Your task to perform on an android device: toggle improve location accuracy Image 0: 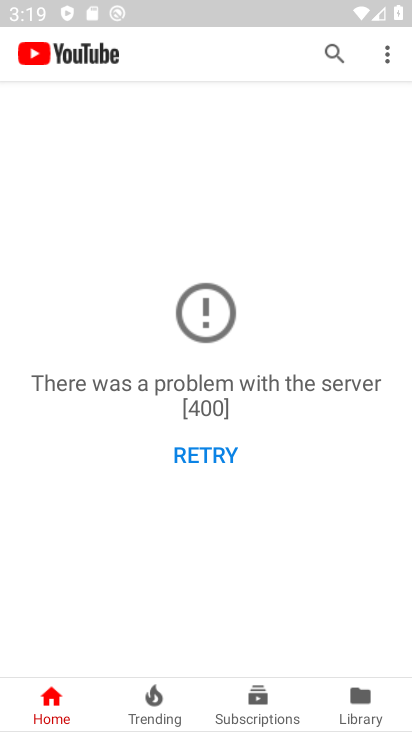
Step 0: press back button
Your task to perform on an android device: toggle improve location accuracy Image 1: 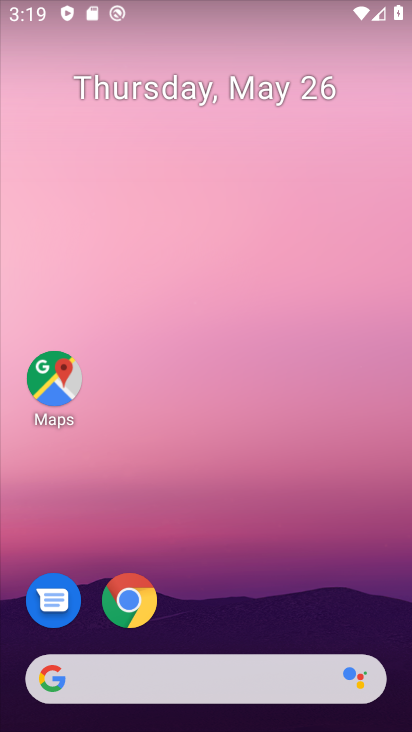
Step 1: drag from (247, 442) to (234, 52)
Your task to perform on an android device: toggle improve location accuracy Image 2: 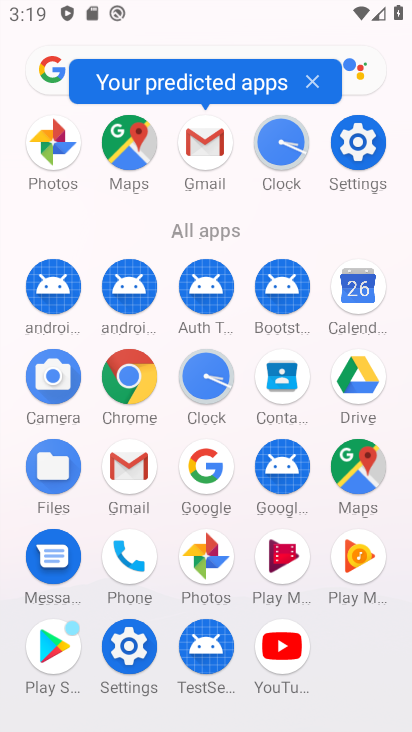
Step 2: drag from (12, 633) to (26, 298)
Your task to perform on an android device: toggle improve location accuracy Image 3: 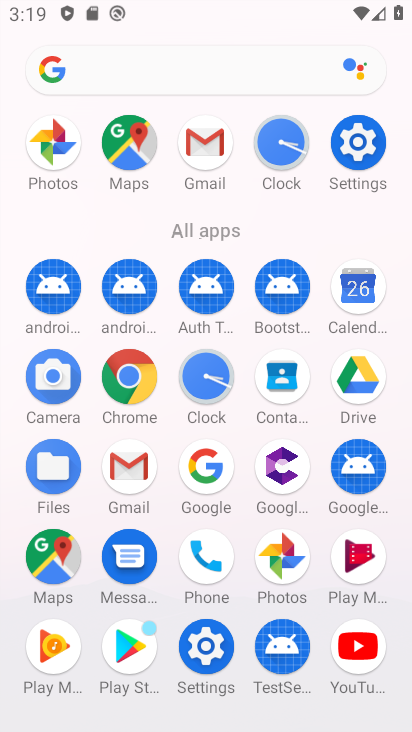
Step 3: click (204, 645)
Your task to perform on an android device: toggle improve location accuracy Image 4: 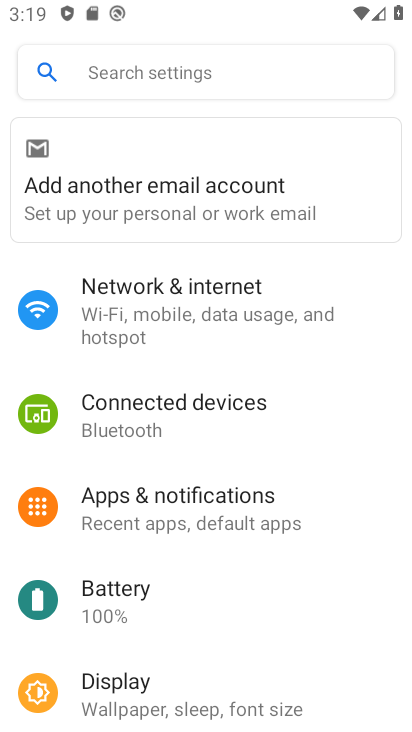
Step 4: drag from (289, 590) to (326, 222)
Your task to perform on an android device: toggle improve location accuracy Image 5: 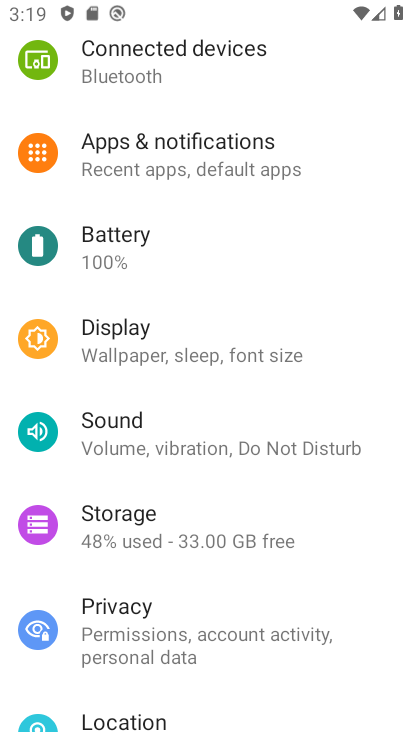
Step 5: click (191, 702)
Your task to perform on an android device: toggle improve location accuracy Image 6: 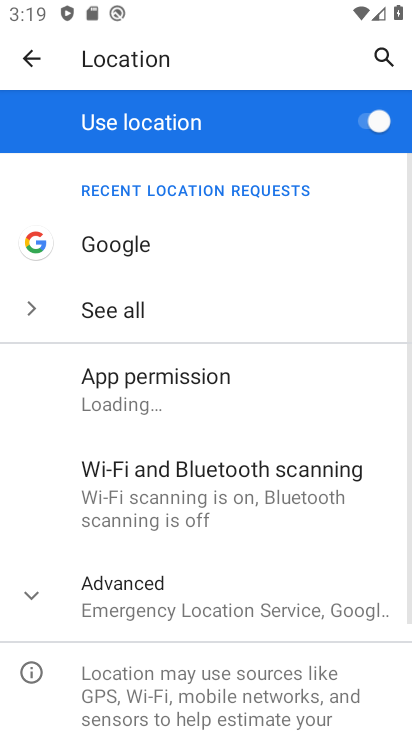
Step 6: drag from (215, 605) to (286, 207)
Your task to perform on an android device: toggle improve location accuracy Image 7: 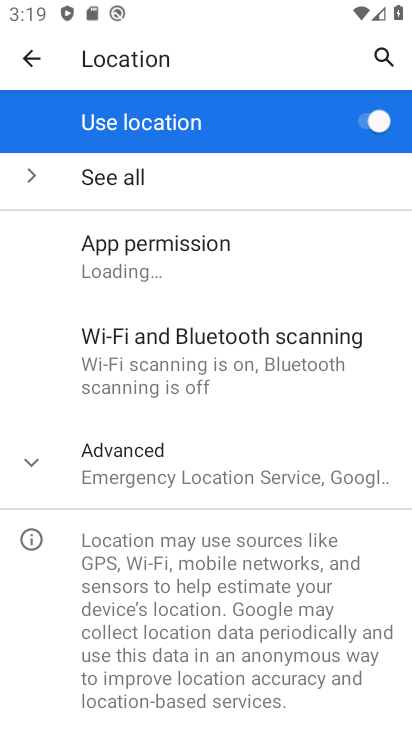
Step 7: click (12, 471)
Your task to perform on an android device: toggle improve location accuracy Image 8: 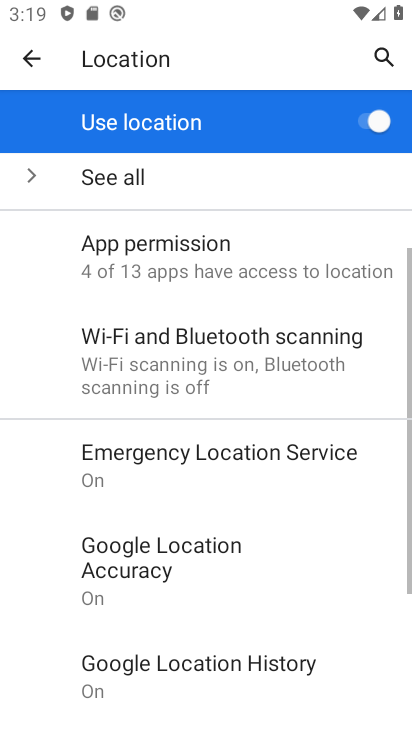
Step 8: drag from (277, 649) to (306, 256)
Your task to perform on an android device: toggle improve location accuracy Image 9: 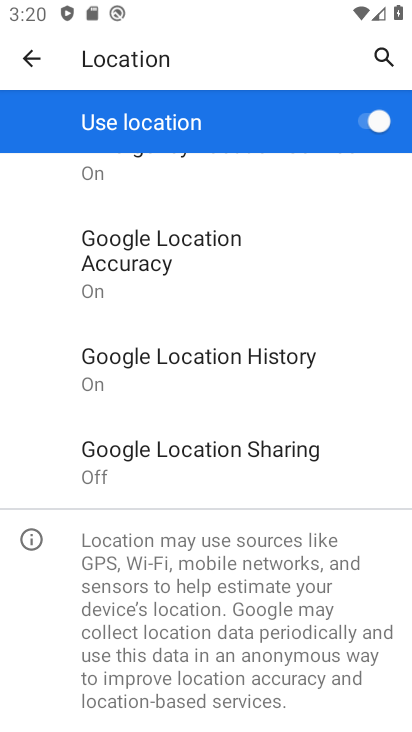
Step 9: click (222, 254)
Your task to perform on an android device: toggle improve location accuracy Image 10: 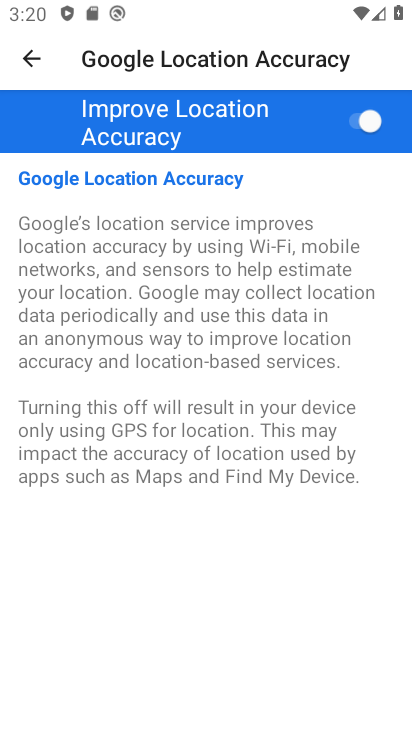
Step 10: click (356, 115)
Your task to perform on an android device: toggle improve location accuracy Image 11: 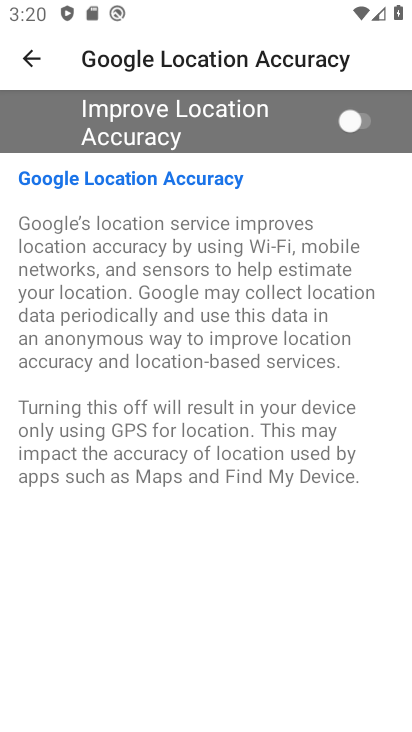
Step 11: task complete